Your task to perform on an android device: turn off notifications in google photos Image 0: 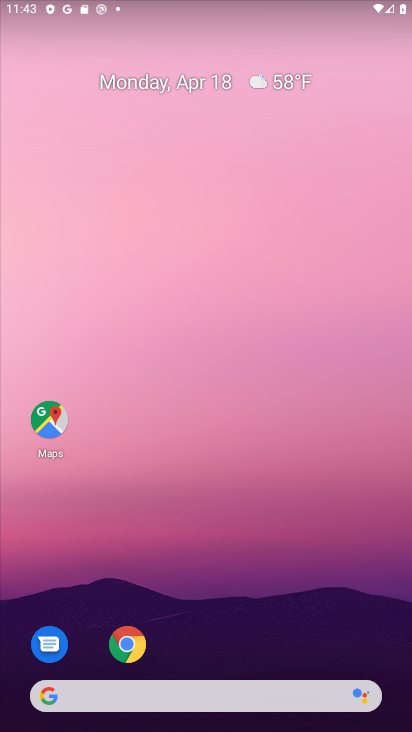
Step 0: drag from (244, 573) to (258, 106)
Your task to perform on an android device: turn off notifications in google photos Image 1: 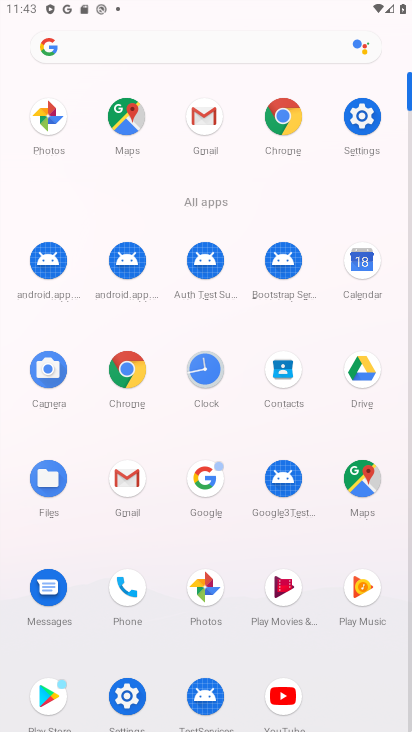
Step 1: click (58, 120)
Your task to perform on an android device: turn off notifications in google photos Image 2: 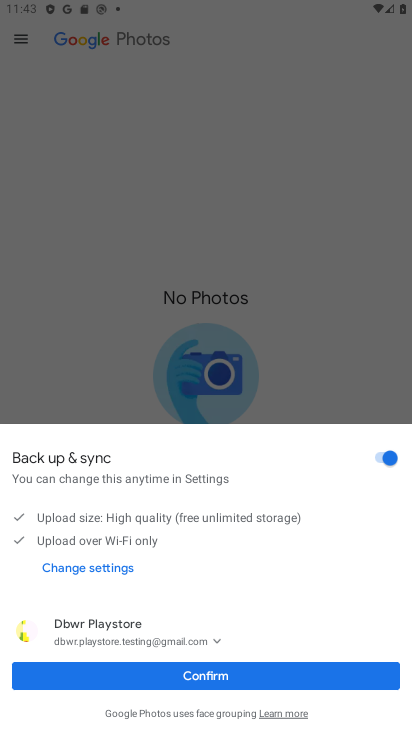
Step 2: click (244, 674)
Your task to perform on an android device: turn off notifications in google photos Image 3: 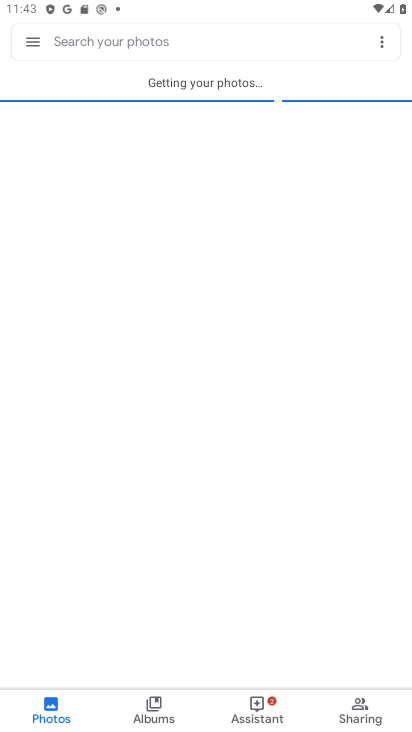
Step 3: click (35, 40)
Your task to perform on an android device: turn off notifications in google photos Image 4: 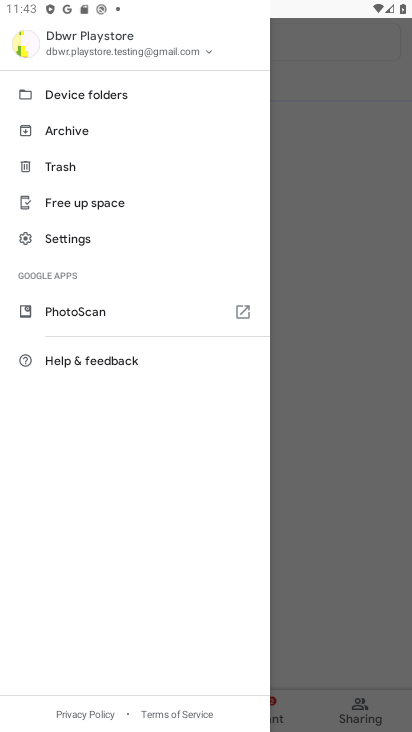
Step 4: click (80, 236)
Your task to perform on an android device: turn off notifications in google photos Image 5: 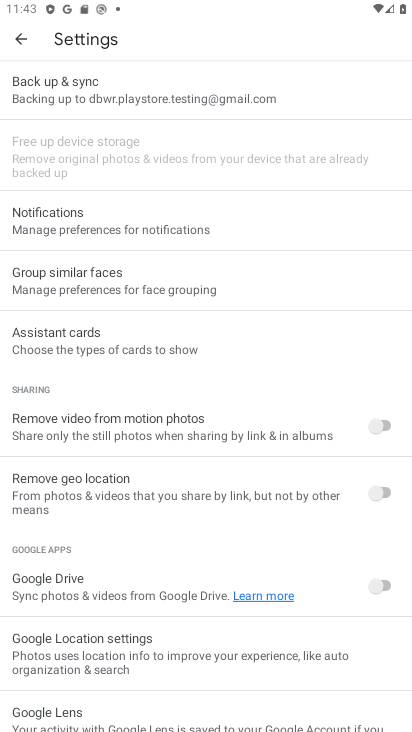
Step 5: click (85, 226)
Your task to perform on an android device: turn off notifications in google photos Image 6: 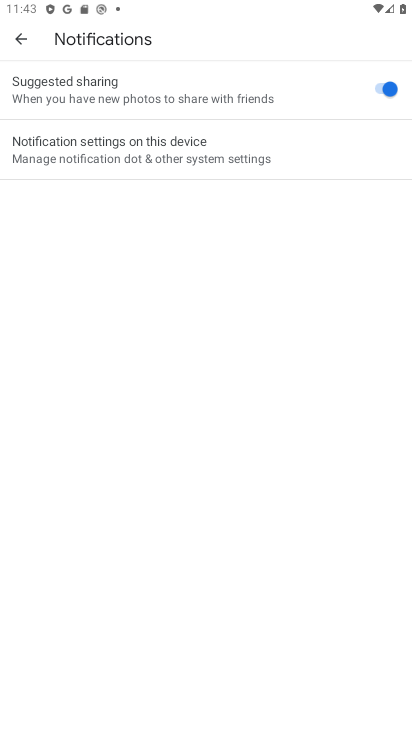
Step 6: click (384, 82)
Your task to perform on an android device: turn off notifications in google photos Image 7: 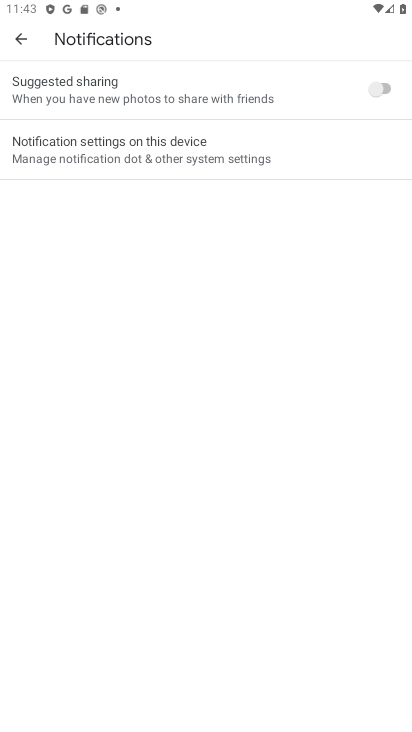
Step 7: task complete